Your task to perform on an android device: turn on sleep mode Image 0: 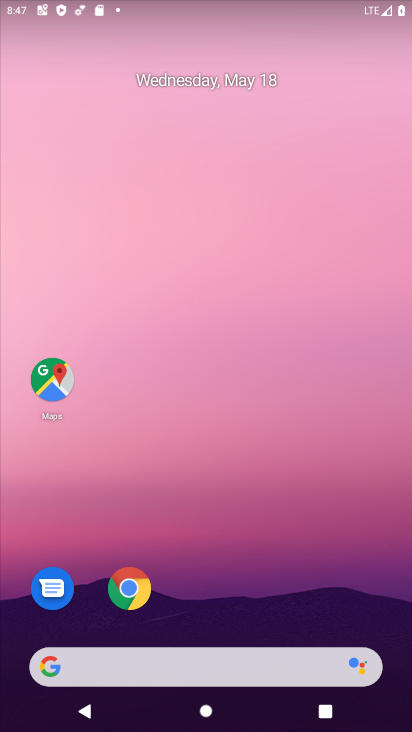
Step 0: drag from (355, 640) to (401, 1)
Your task to perform on an android device: turn on sleep mode Image 1: 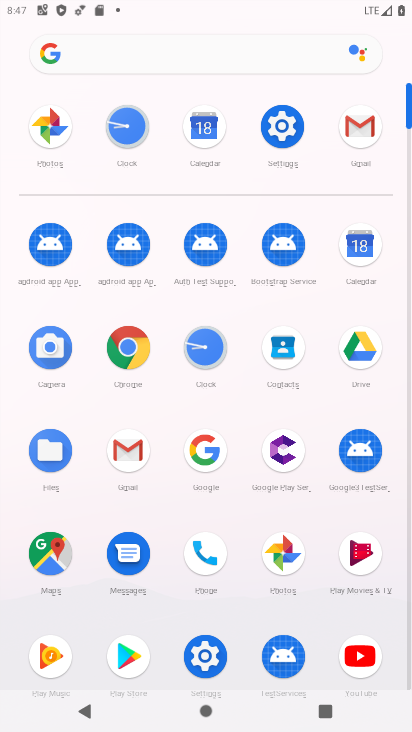
Step 1: click (287, 131)
Your task to perform on an android device: turn on sleep mode Image 2: 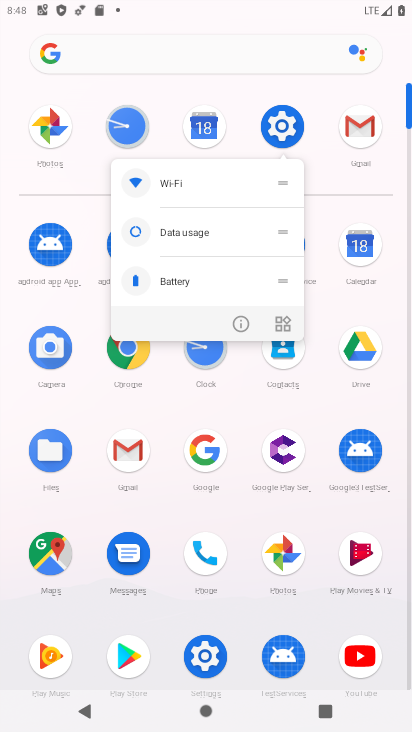
Step 2: click (276, 128)
Your task to perform on an android device: turn on sleep mode Image 3: 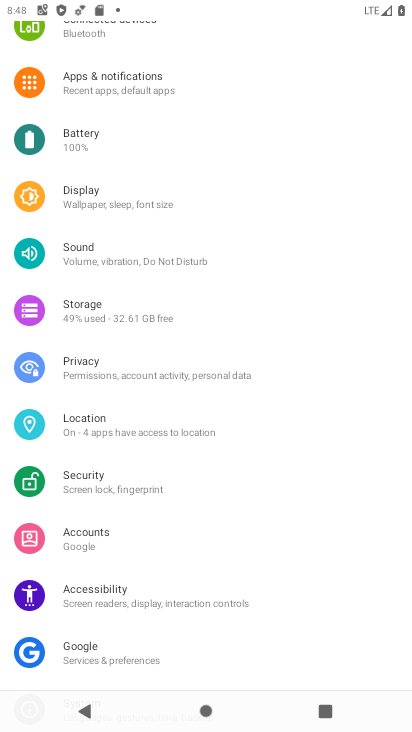
Step 3: click (75, 204)
Your task to perform on an android device: turn on sleep mode Image 4: 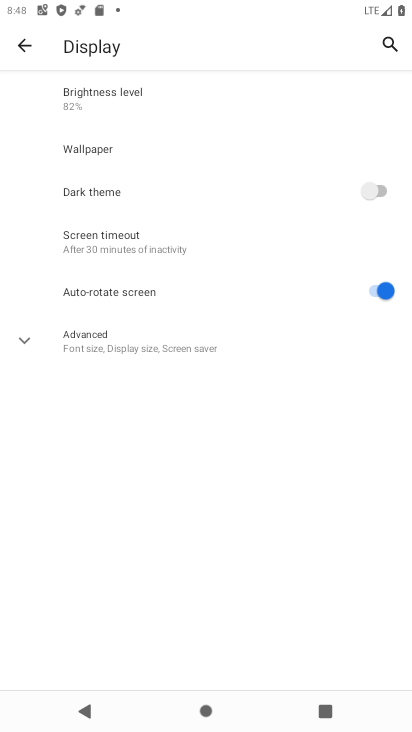
Step 4: click (14, 345)
Your task to perform on an android device: turn on sleep mode Image 5: 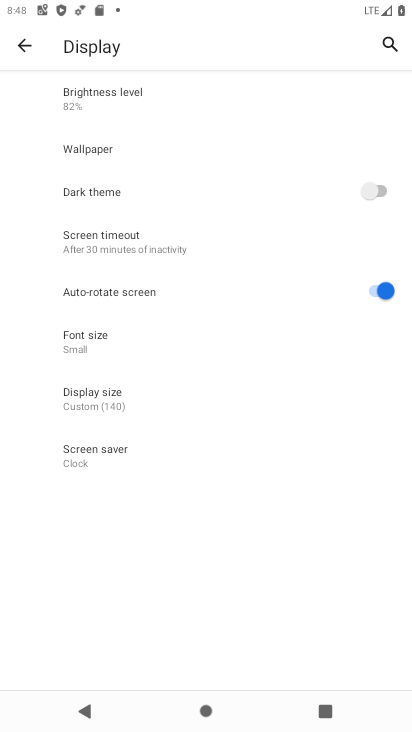
Step 5: task complete